Your task to perform on an android device: Open the map Image 0: 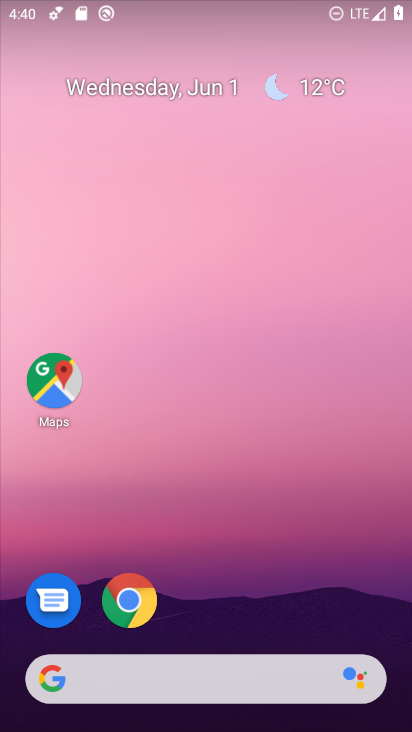
Step 0: click (59, 385)
Your task to perform on an android device: Open the map Image 1: 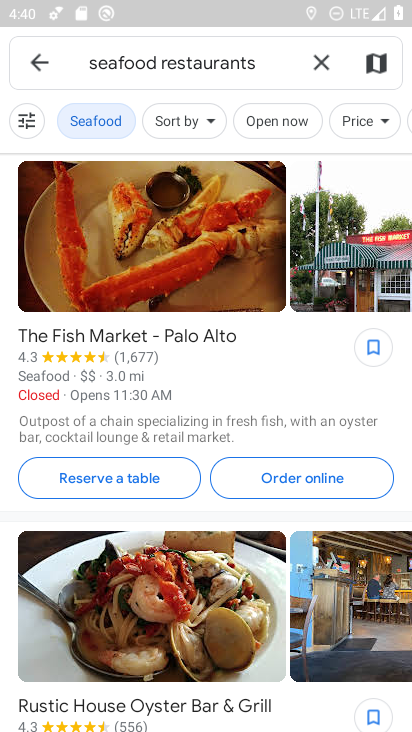
Step 1: click (319, 59)
Your task to perform on an android device: Open the map Image 2: 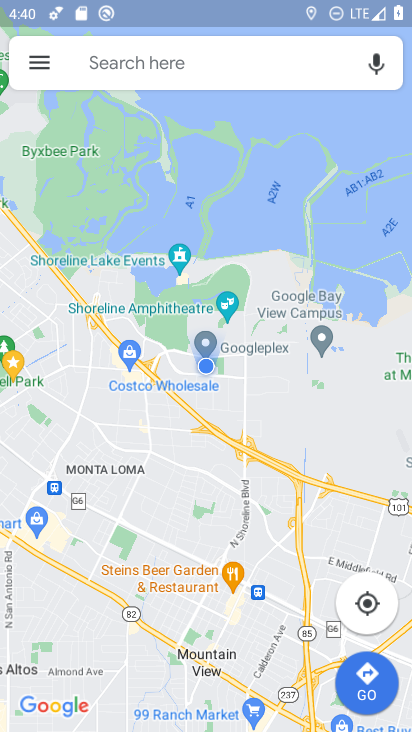
Step 2: task complete